Your task to perform on an android device: turn on data saver in the chrome app Image 0: 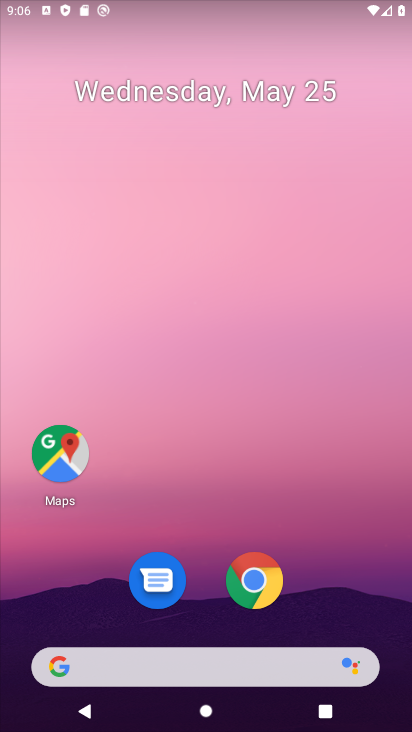
Step 0: click (246, 576)
Your task to perform on an android device: turn on data saver in the chrome app Image 1: 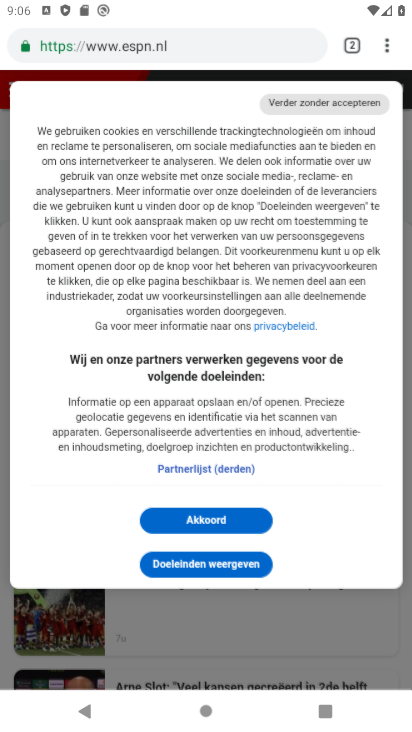
Step 1: click (383, 48)
Your task to perform on an android device: turn on data saver in the chrome app Image 2: 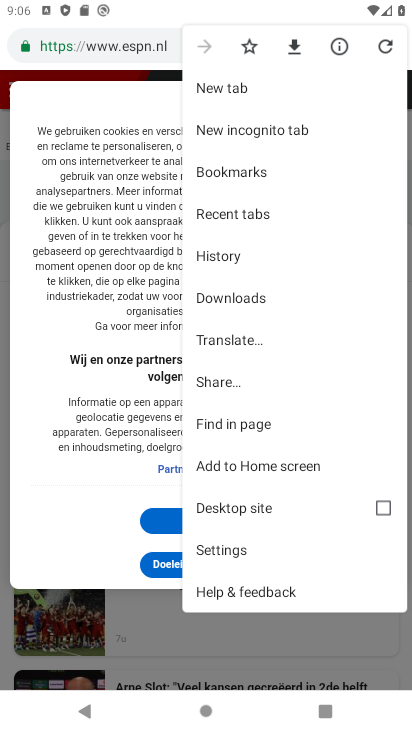
Step 2: click (224, 540)
Your task to perform on an android device: turn on data saver in the chrome app Image 3: 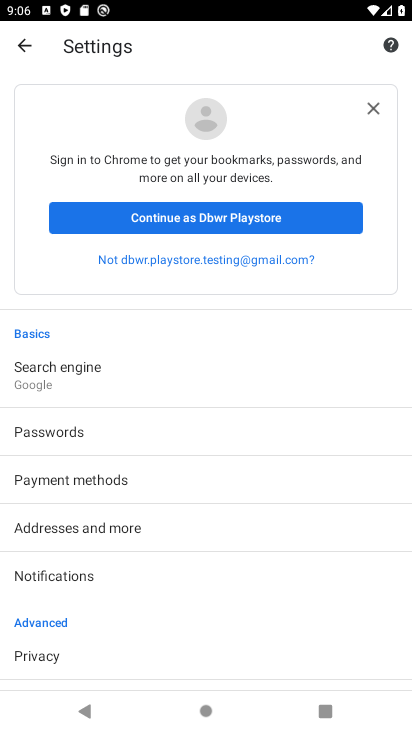
Step 3: drag from (2, 635) to (180, 143)
Your task to perform on an android device: turn on data saver in the chrome app Image 4: 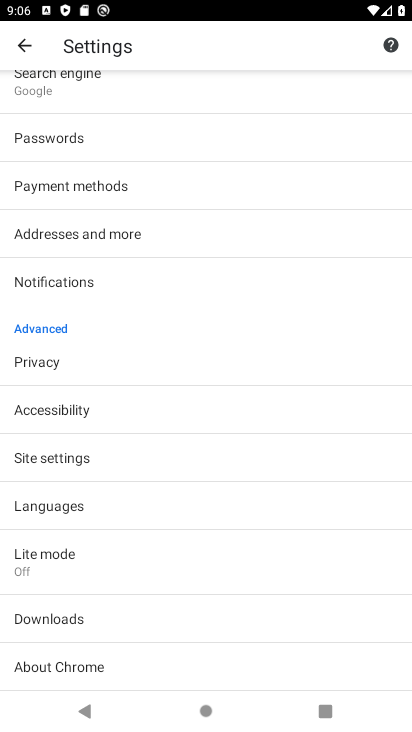
Step 4: click (99, 566)
Your task to perform on an android device: turn on data saver in the chrome app Image 5: 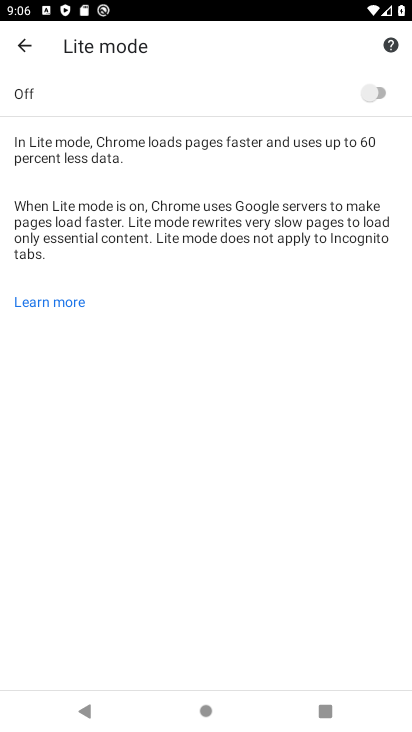
Step 5: click (373, 92)
Your task to perform on an android device: turn on data saver in the chrome app Image 6: 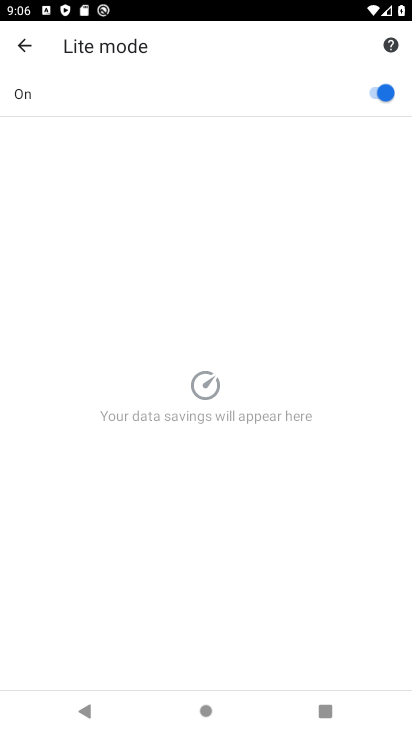
Step 6: task complete